Your task to perform on an android device: Check the settings for the Google Play Store app Image 0: 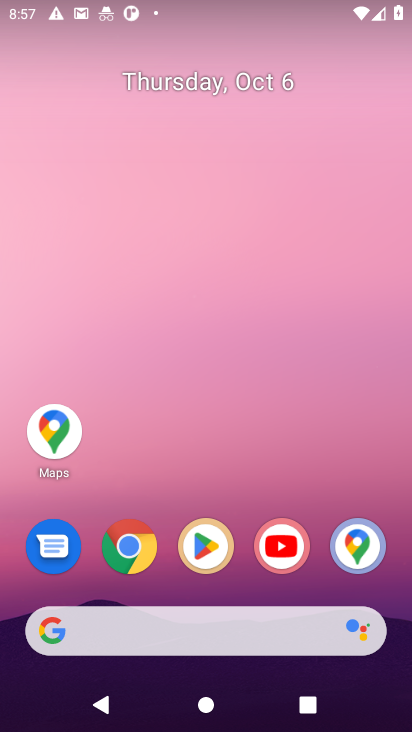
Step 0: click (206, 543)
Your task to perform on an android device: Check the settings for the Google Play Store app Image 1: 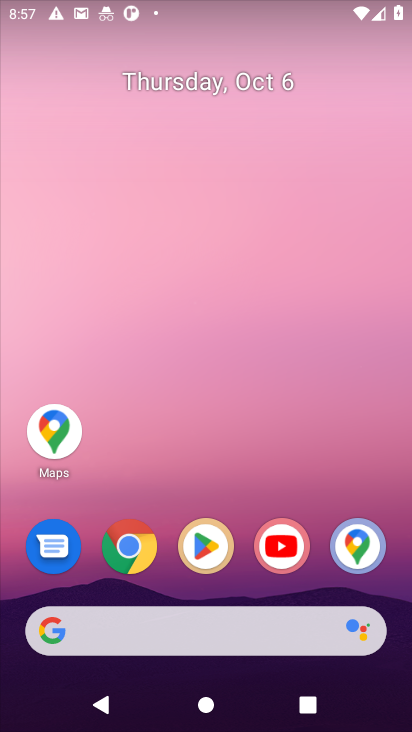
Step 1: click (206, 541)
Your task to perform on an android device: Check the settings for the Google Play Store app Image 2: 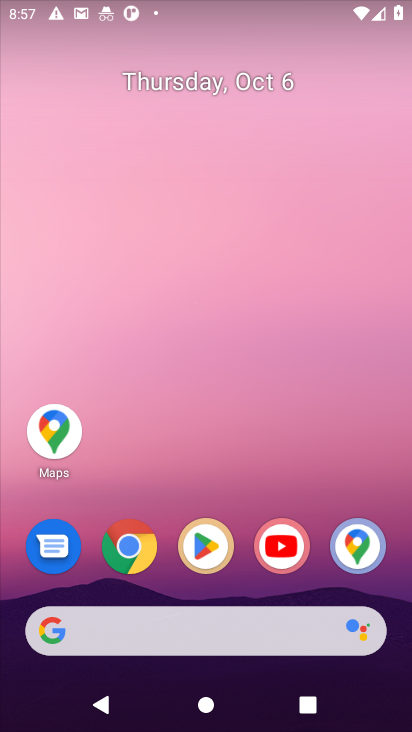
Step 2: click (206, 541)
Your task to perform on an android device: Check the settings for the Google Play Store app Image 3: 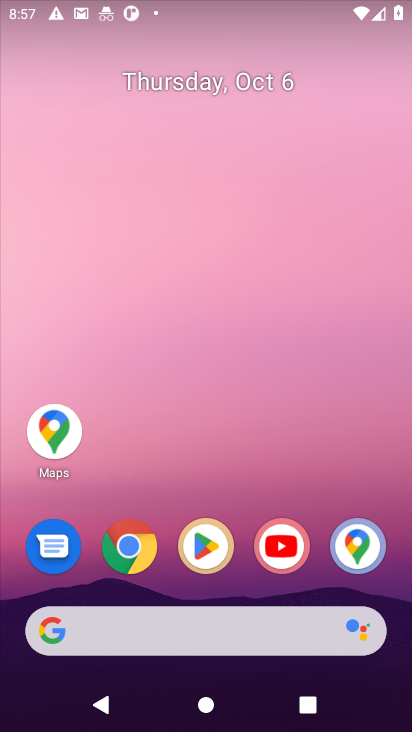
Step 3: click (206, 541)
Your task to perform on an android device: Check the settings for the Google Play Store app Image 4: 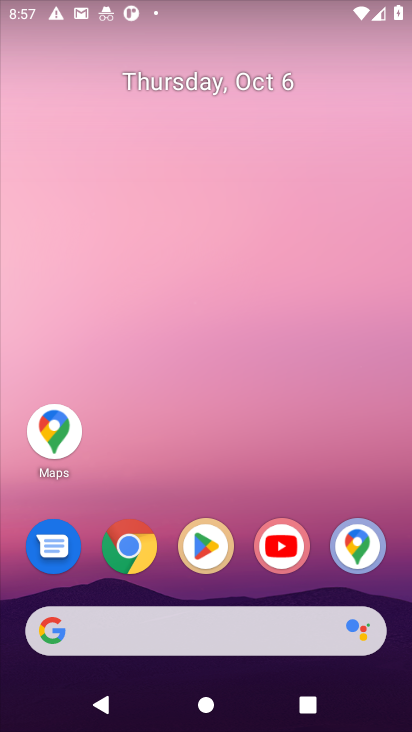
Step 4: click (206, 541)
Your task to perform on an android device: Check the settings for the Google Play Store app Image 5: 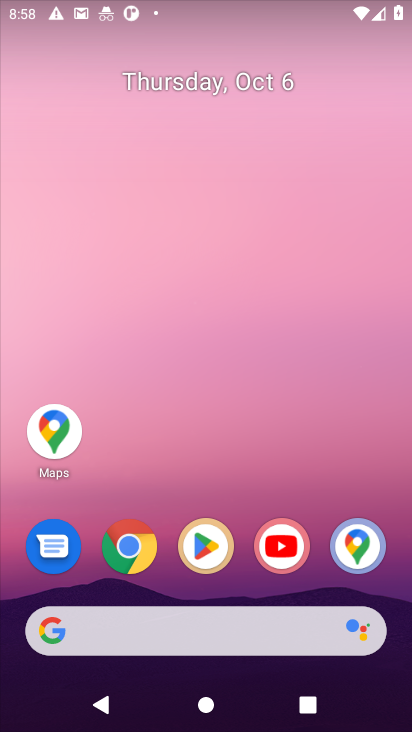
Step 5: click (210, 546)
Your task to perform on an android device: Check the settings for the Google Play Store app Image 6: 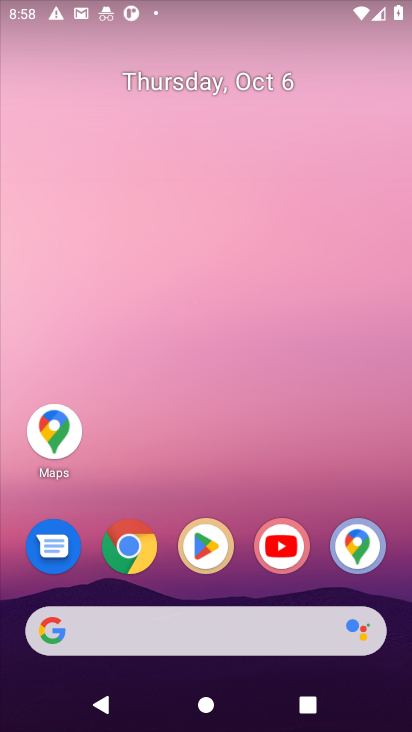
Step 6: click (211, 548)
Your task to perform on an android device: Check the settings for the Google Play Store app Image 7: 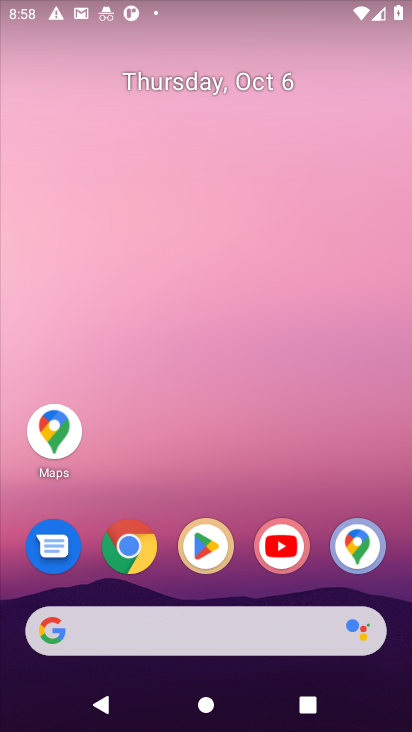
Step 7: task complete